Your task to perform on an android device: add a contact in the contacts app Image 0: 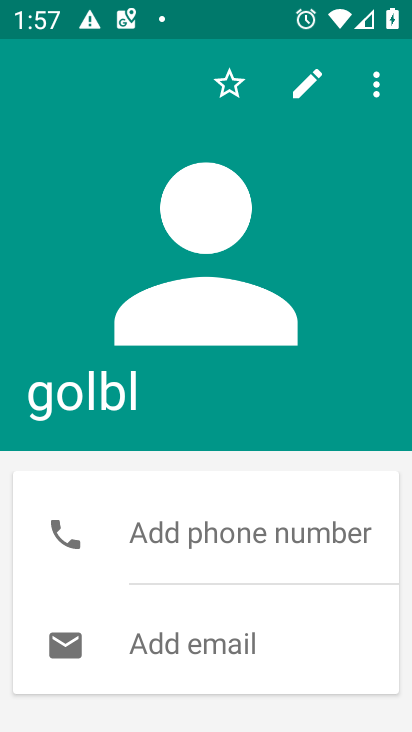
Step 0: task complete